Your task to perform on an android device: turn notification dots on Image 0: 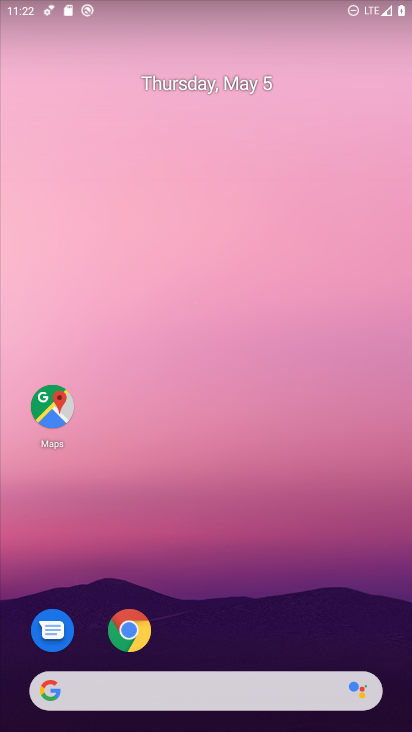
Step 0: drag from (281, 599) to (306, 73)
Your task to perform on an android device: turn notification dots on Image 1: 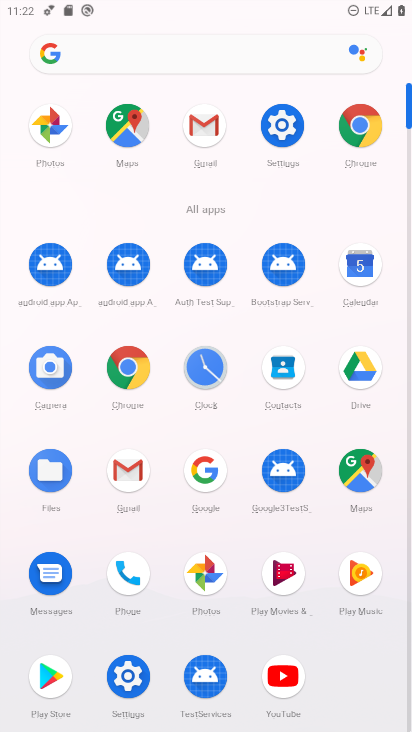
Step 1: click (290, 128)
Your task to perform on an android device: turn notification dots on Image 2: 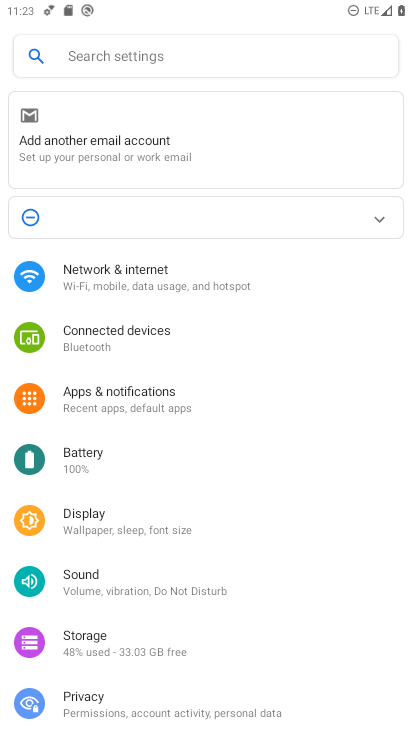
Step 2: drag from (257, 607) to (303, 177)
Your task to perform on an android device: turn notification dots on Image 3: 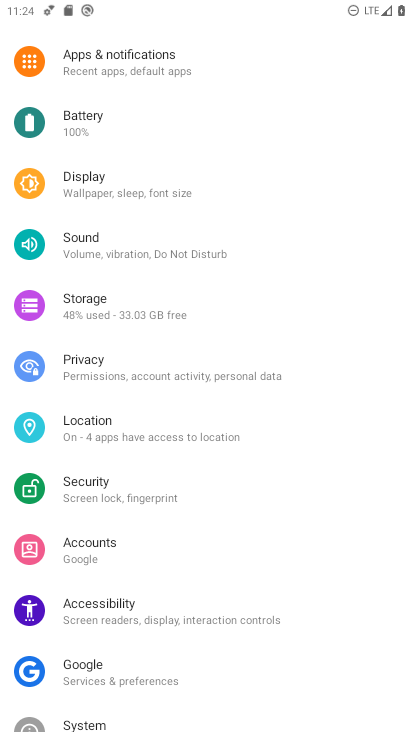
Step 3: click (144, 68)
Your task to perform on an android device: turn notification dots on Image 4: 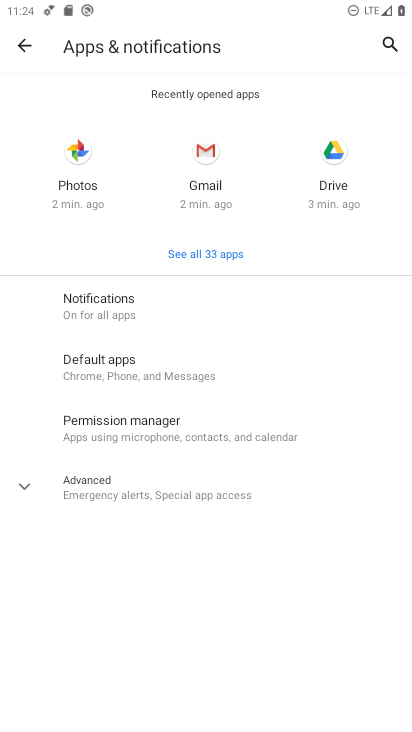
Step 4: click (143, 312)
Your task to perform on an android device: turn notification dots on Image 5: 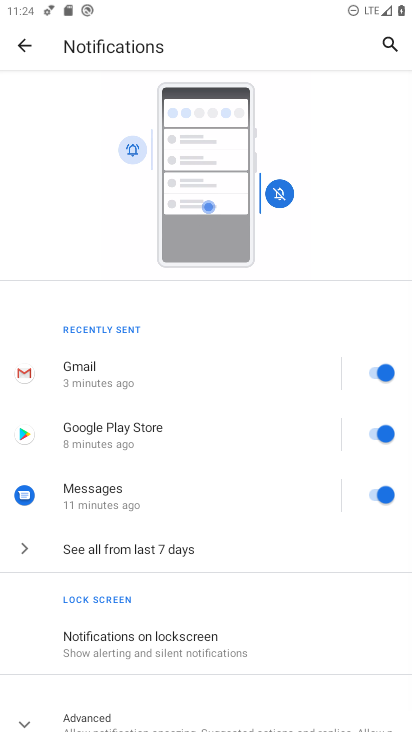
Step 5: drag from (199, 624) to (283, 146)
Your task to perform on an android device: turn notification dots on Image 6: 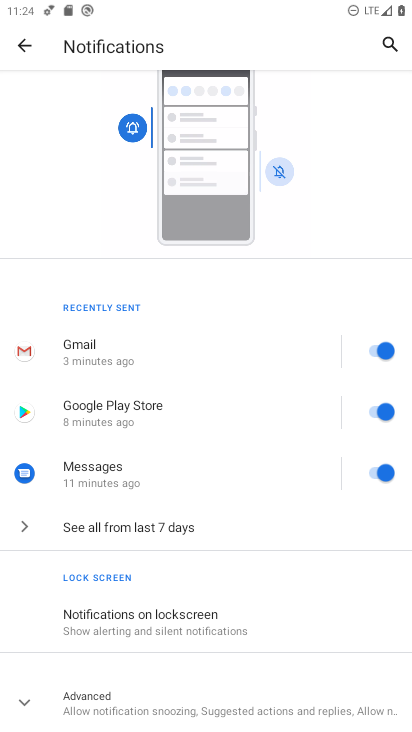
Step 6: click (115, 704)
Your task to perform on an android device: turn notification dots on Image 7: 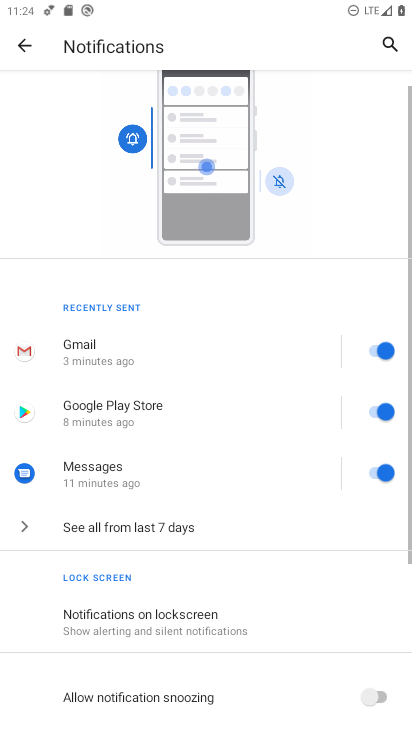
Step 7: task complete